Your task to perform on an android device: add a contact Image 0: 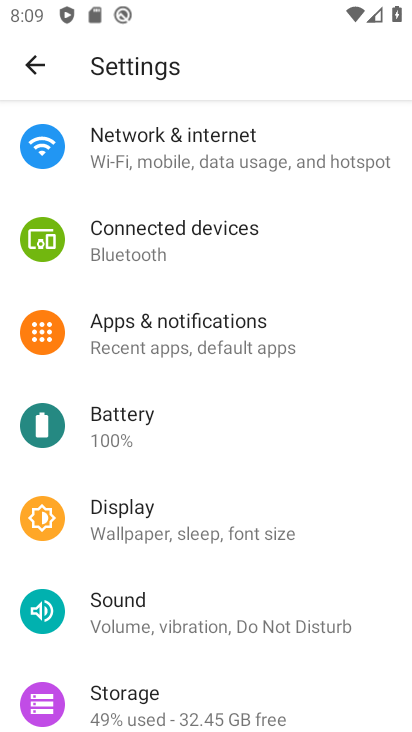
Step 0: drag from (341, 556) to (345, 399)
Your task to perform on an android device: add a contact Image 1: 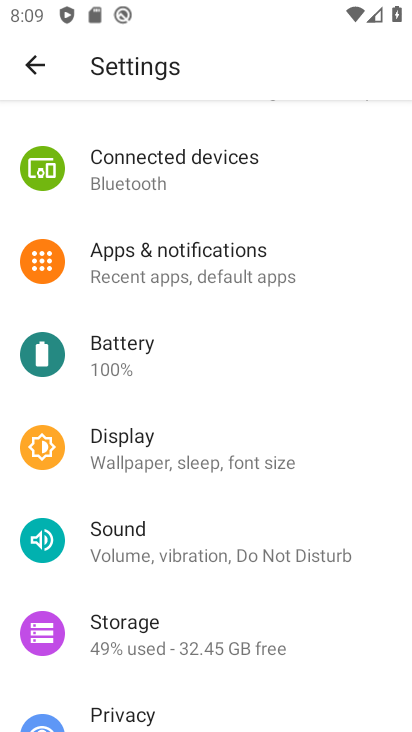
Step 1: press home button
Your task to perform on an android device: add a contact Image 2: 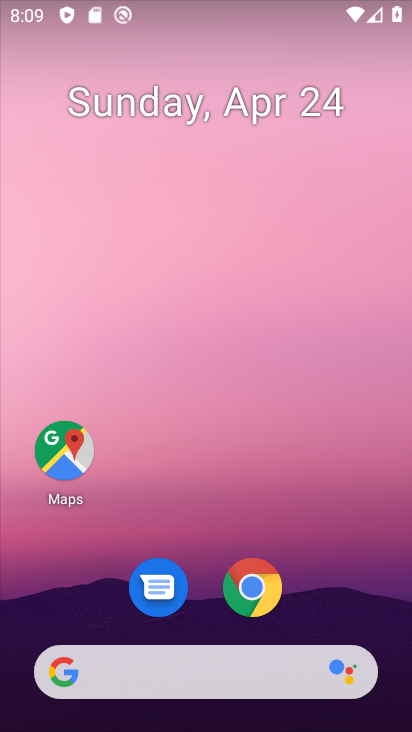
Step 2: drag from (361, 582) to (363, 153)
Your task to perform on an android device: add a contact Image 3: 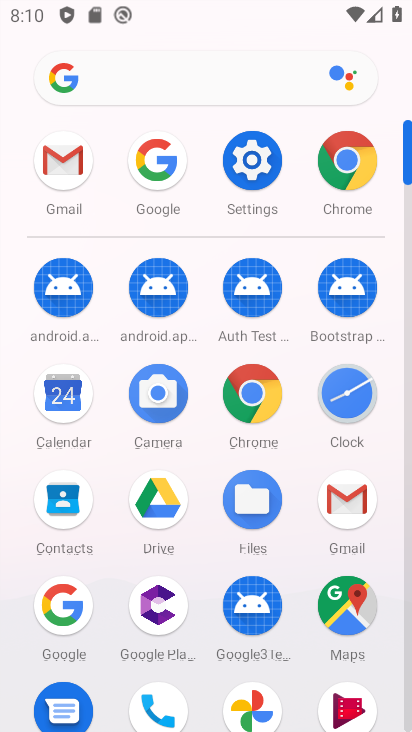
Step 3: click (77, 512)
Your task to perform on an android device: add a contact Image 4: 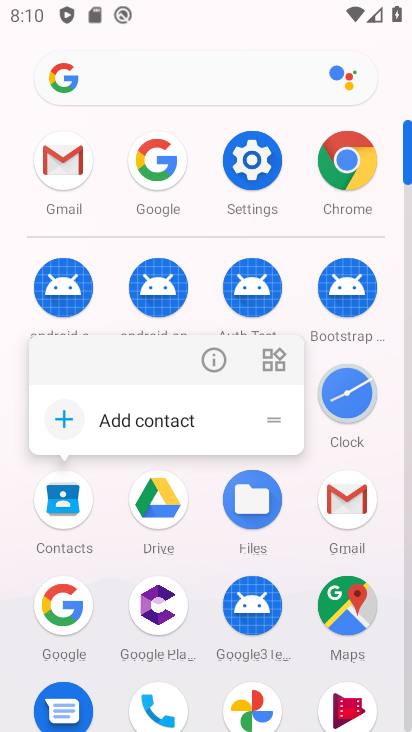
Step 4: click (62, 510)
Your task to perform on an android device: add a contact Image 5: 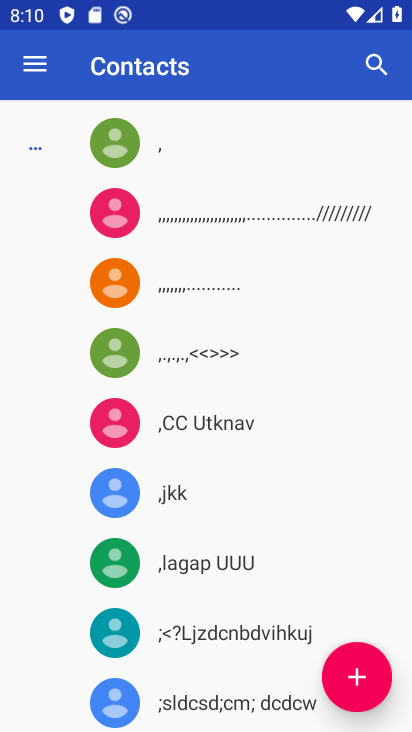
Step 5: click (357, 676)
Your task to perform on an android device: add a contact Image 6: 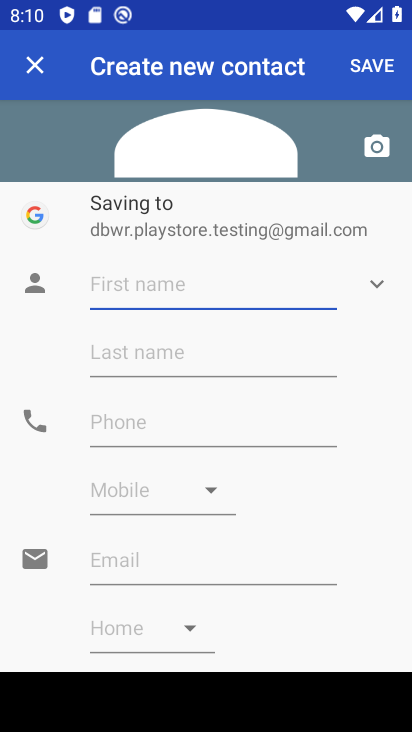
Step 6: click (135, 282)
Your task to perform on an android device: add a contact Image 7: 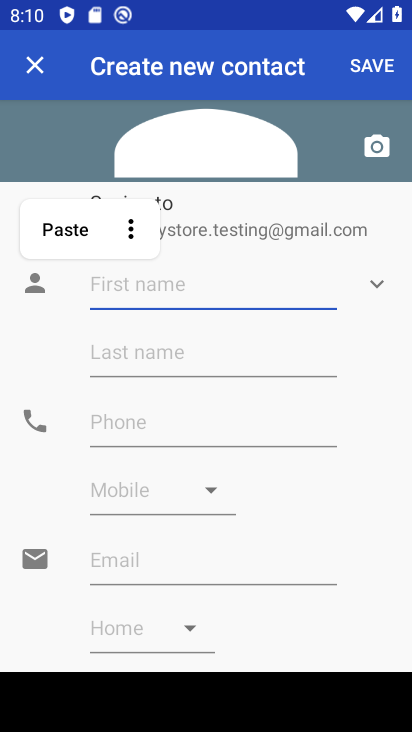
Step 7: type "naresh"
Your task to perform on an android device: add a contact Image 8: 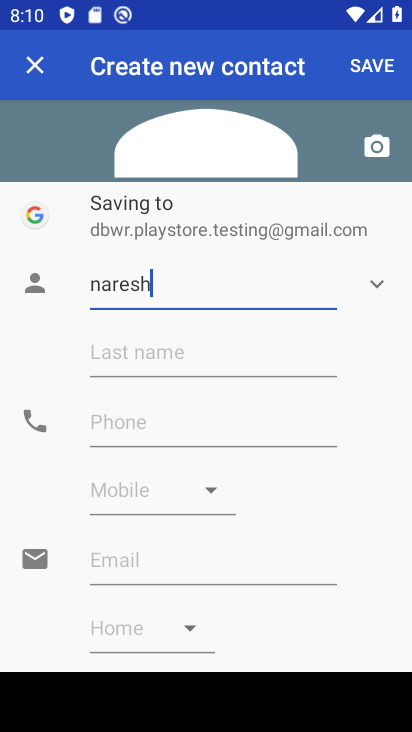
Step 8: click (306, 428)
Your task to perform on an android device: add a contact Image 9: 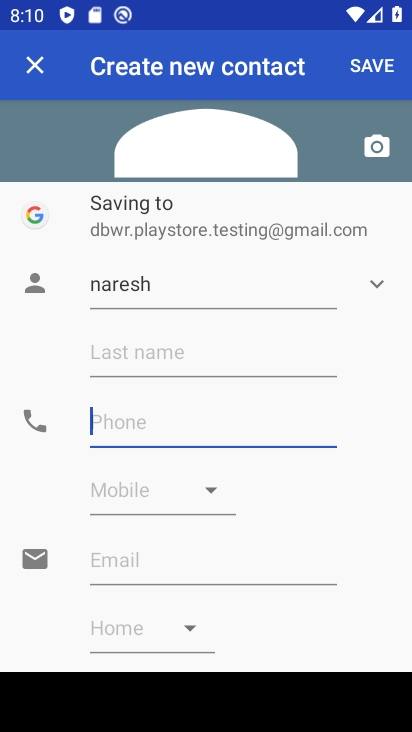
Step 9: type "9876767656"
Your task to perform on an android device: add a contact Image 10: 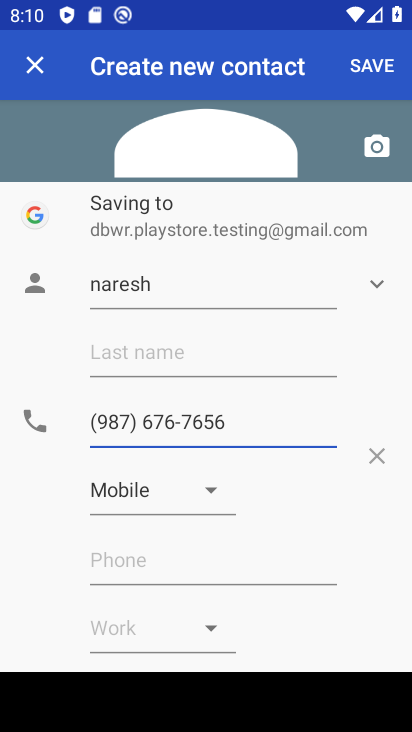
Step 10: click (365, 67)
Your task to perform on an android device: add a contact Image 11: 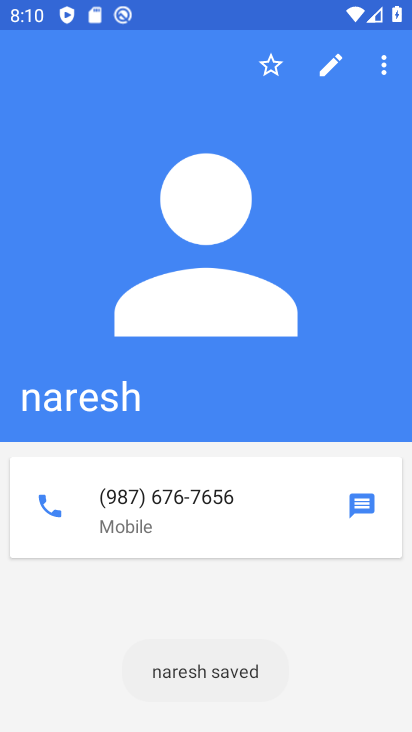
Step 11: task complete